Your task to perform on an android device: Open Yahoo.com Image 0: 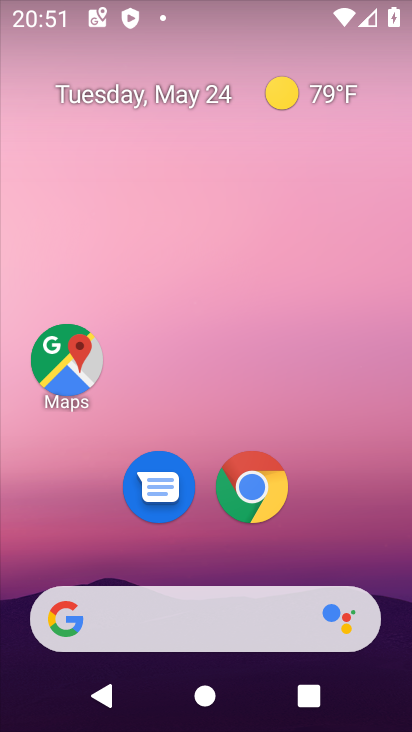
Step 0: press home button
Your task to perform on an android device: Open Yahoo.com Image 1: 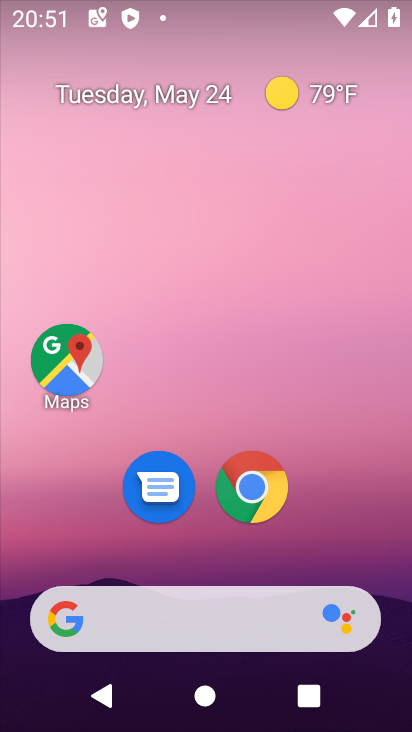
Step 1: click (275, 484)
Your task to perform on an android device: Open Yahoo.com Image 2: 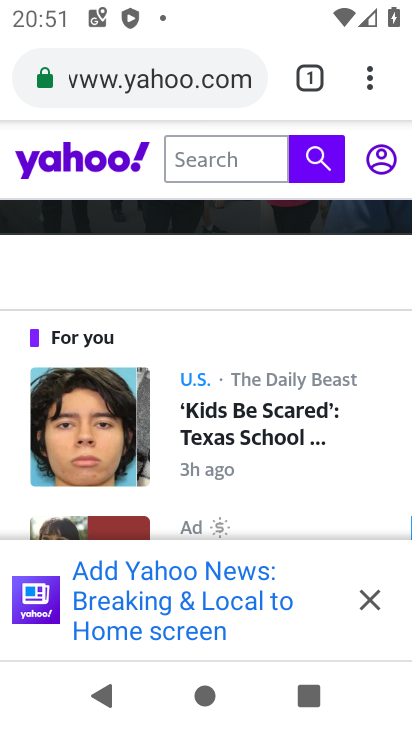
Step 2: task complete